Your task to perform on an android device: Open the phone app and click the voicemail tab. Image 0: 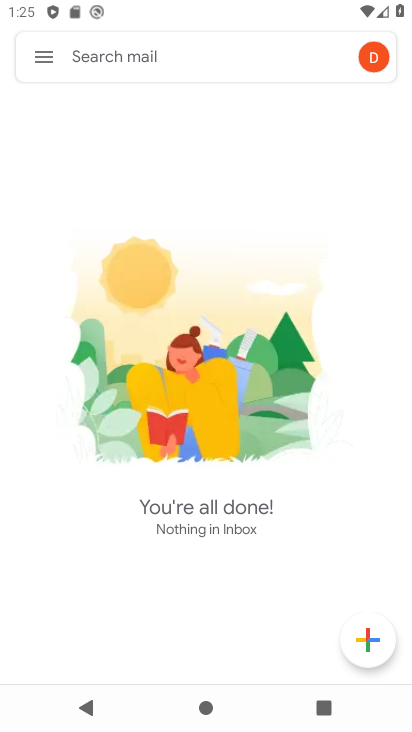
Step 0: press home button
Your task to perform on an android device: Open the phone app and click the voicemail tab. Image 1: 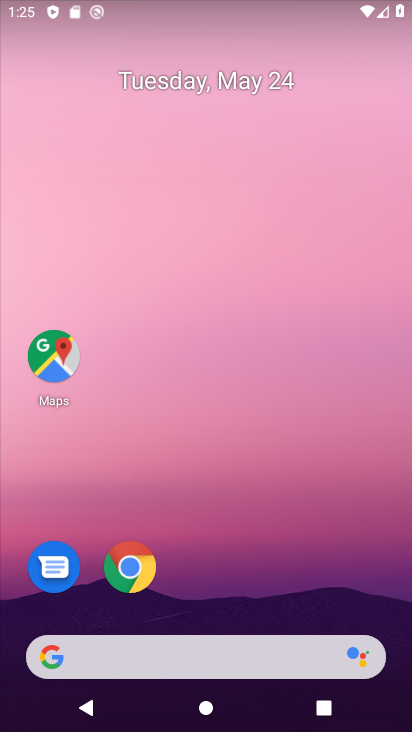
Step 1: drag from (212, 612) to (188, 119)
Your task to perform on an android device: Open the phone app and click the voicemail tab. Image 2: 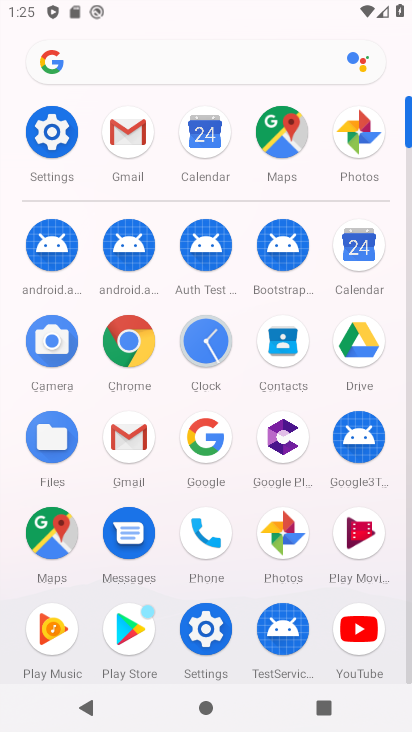
Step 2: click (210, 575)
Your task to perform on an android device: Open the phone app and click the voicemail tab. Image 3: 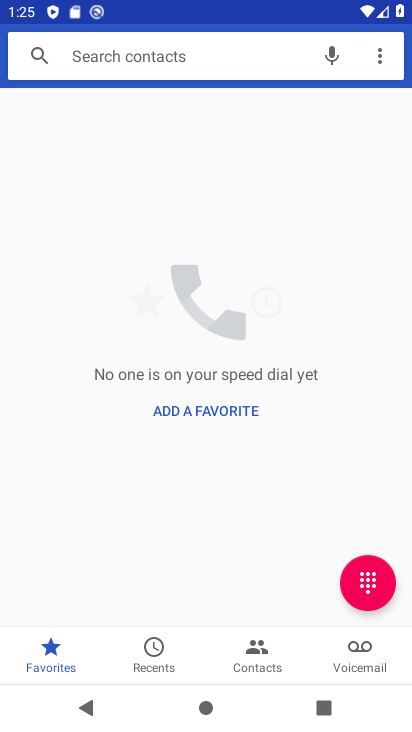
Step 3: click (342, 647)
Your task to perform on an android device: Open the phone app and click the voicemail tab. Image 4: 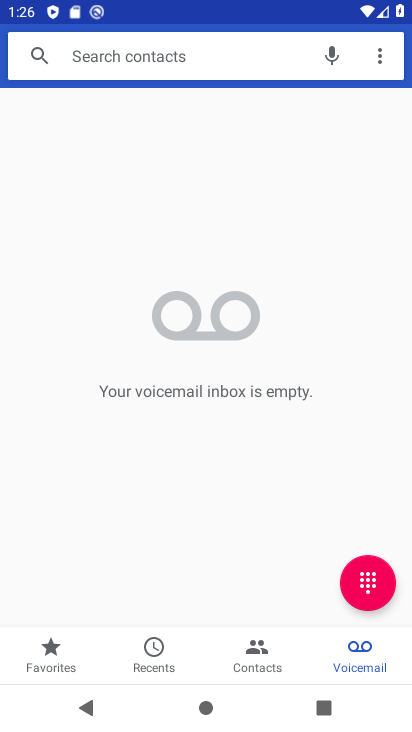
Step 4: task complete